Your task to perform on an android device: choose inbox layout in the gmail app Image 0: 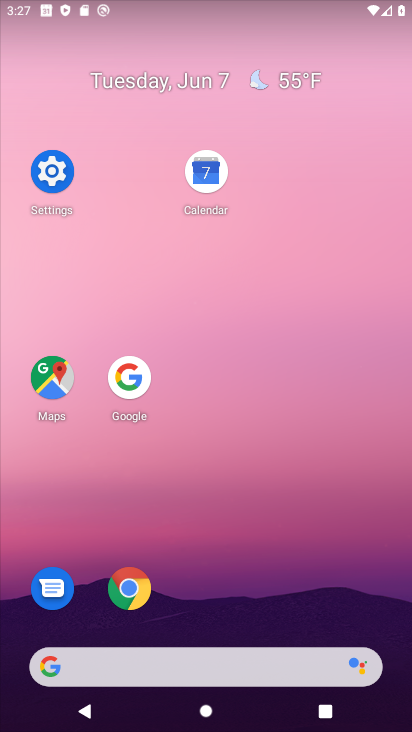
Step 0: drag from (307, 535) to (380, 98)
Your task to perform on an android device: choose inbox layout in the gmail app Image 1: 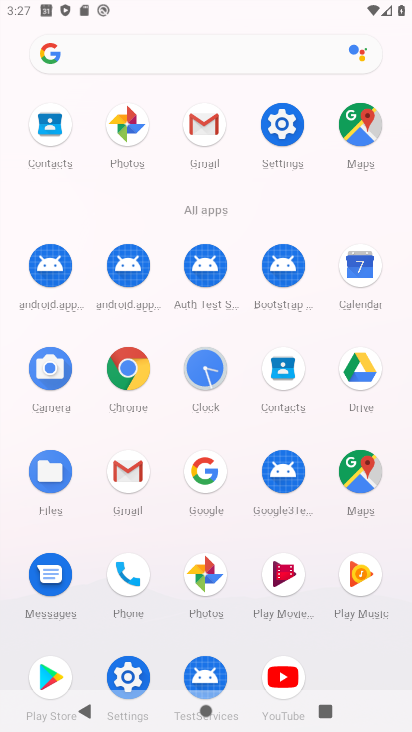
Step 1: drag from (142, 480) to (125, 197)
Your task to perform on an android device: choose inbox layout in the gmail app Image 2: 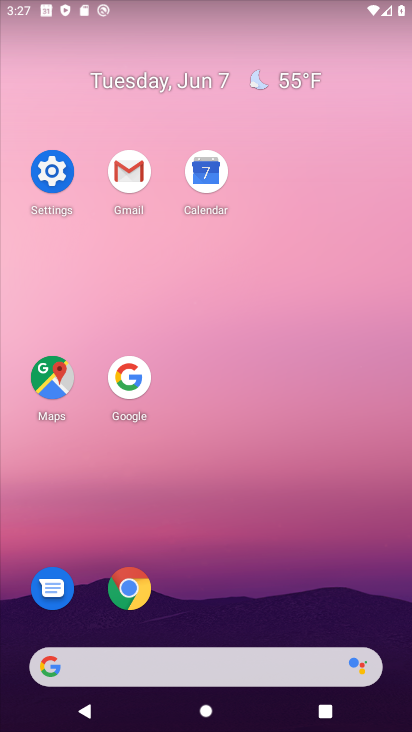
Step 2: click (134, 179)
Your task to perform on an android device: choose inbox layout in the gmail app Image 3: 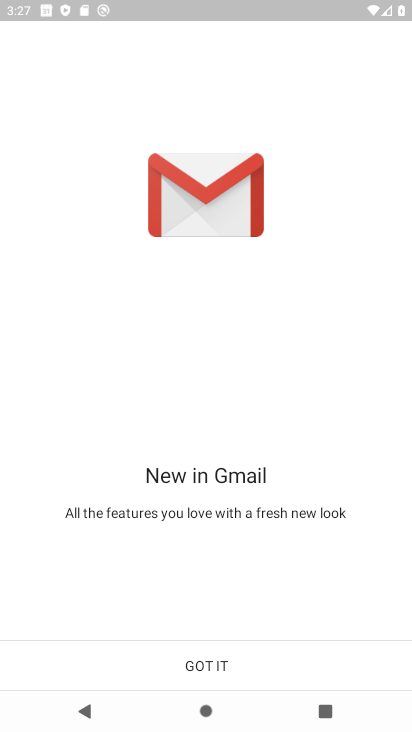
Step 3: click (236, 660)
Your task to perform on an android device: choose inbox layout in the gmail app Image 4: 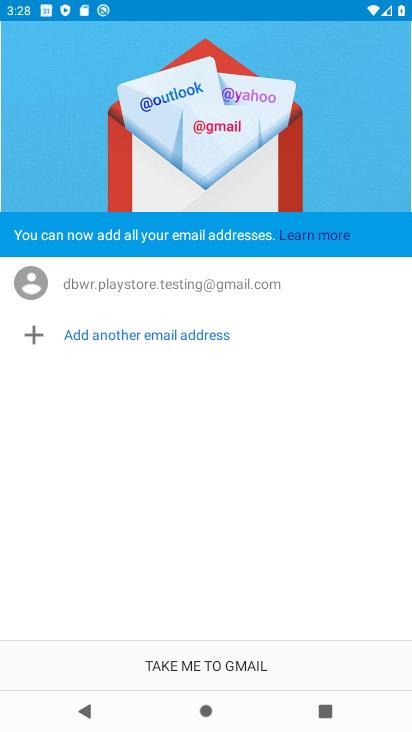
Step 4: click (205, 651)
Your task to perform on an android device: choose inbox layout in the gmail app Image 5: 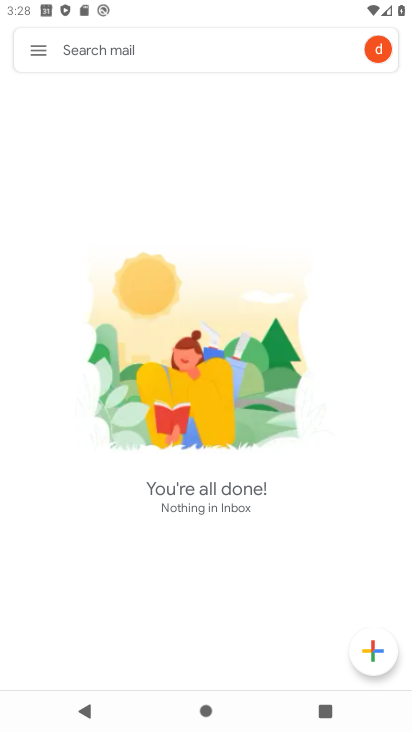
Step 5: click (33, 51)
Your task to perform on an android device: choose inbox layout in the gmail app Image 6: 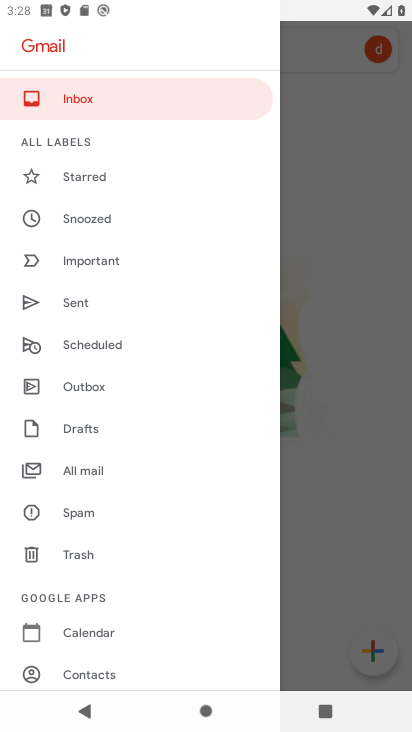
Step 6: drag from (127, 574) to (127, 203)
Your task to perform on an android device: choose inbox layout in the gmail app Image 7: 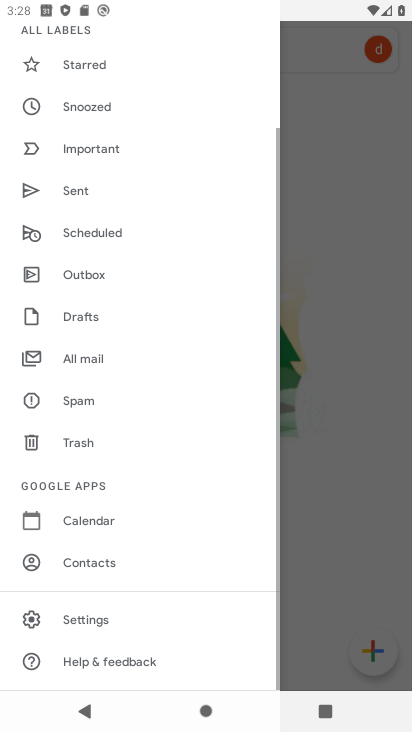
Step 7: click (132, 615)
Your task to perform on an android device: choose inbox layout in the gmail app Image 8: 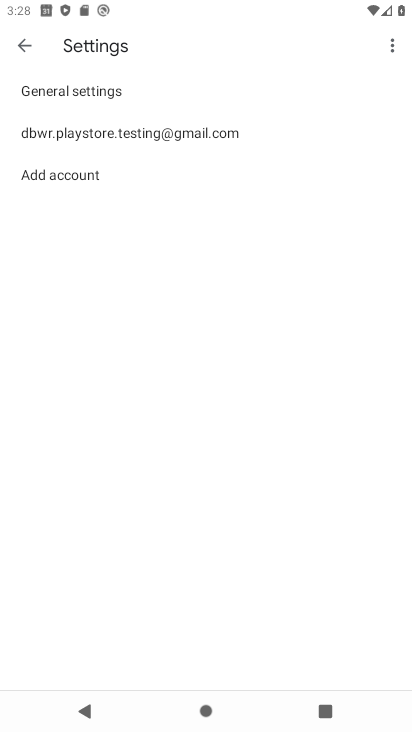
Step 8: click (162, 129)
Your task to perform on an android device: choose inbox layout in the gmail app Image 9: 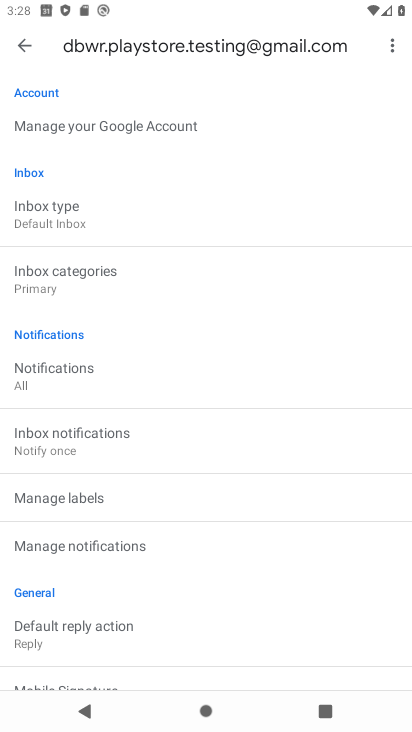
Step 9: click (157, 230)
Your task to perform on an android device: choose inbox layout in the gmail app Image 10: 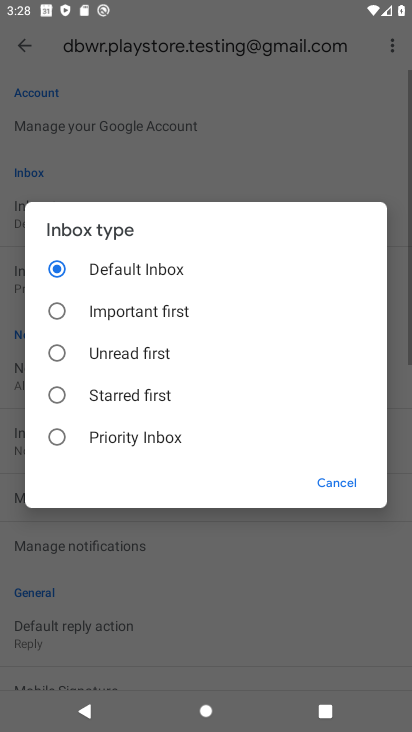
Step 10: task complete